Your task to perform on an android device: Open calendar and show me the third week of next month Image 0: 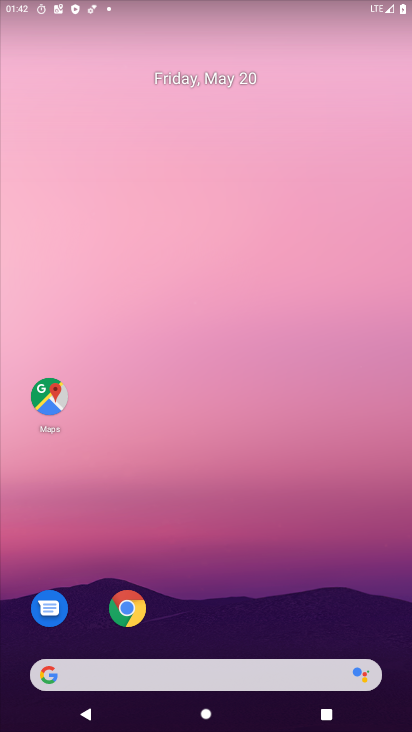
Step 0: drag from (338, 587) to (348, 134)
Your task to perform on an android device: Open calendar and show me the third week of next month Image 1: 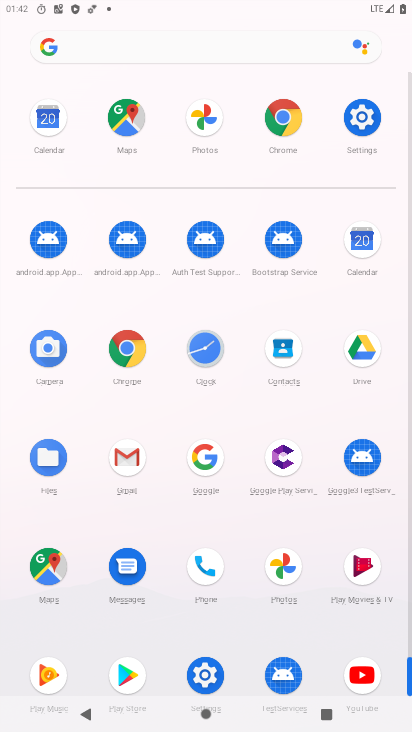
Step 1: click (367, 235)
Your task to perform on an android device: Open calendar and show me the third week of next month Image 2: 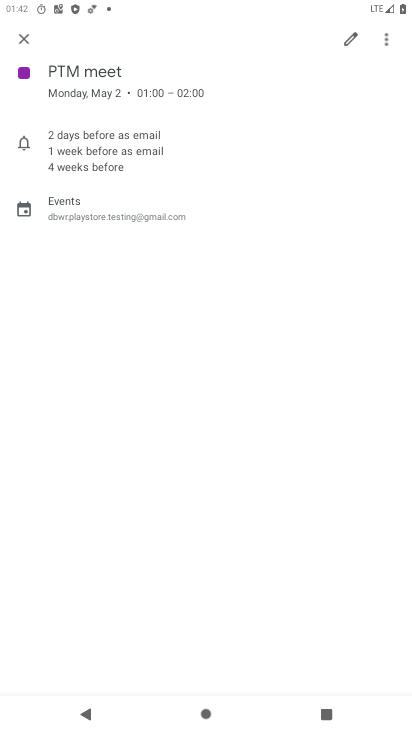
Step 2: click (19, 40)
Your task to perform on an android device: Open calendar and show me the third week of next month Image 3: 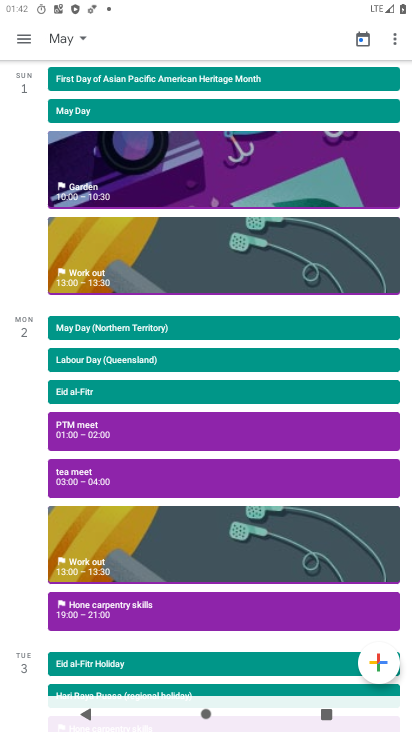
Step 3: click (77, 35)
Your task to perform on an android device: Open calendar and show me the third week of next month Image 4: 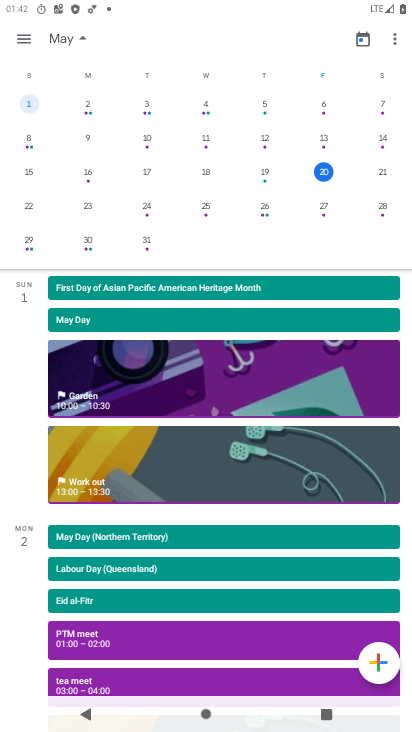
Step 4: drag from (355, 150) to (9, 122)
Your task to perform on an android device: Open calendar and show me the third week of next month Image 5: 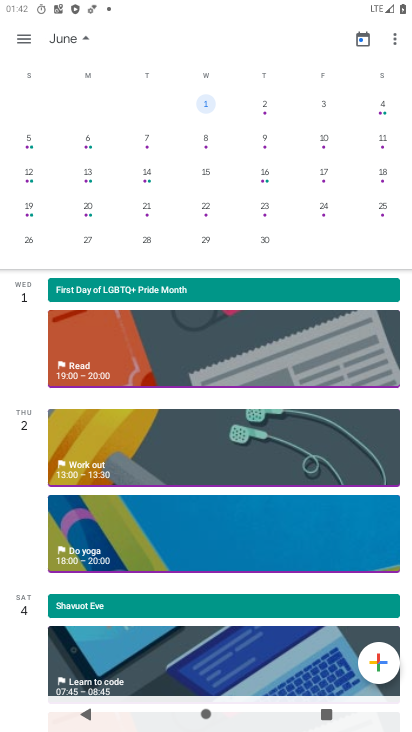
Step 5: click (32, 171)
Your task to perform on an android device: Open calendar and show me the third week of next month Image 6: 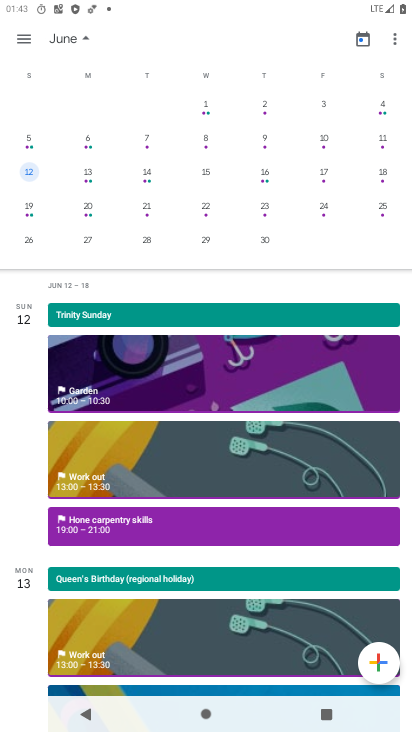
Step 6: task complete